Your task to perform on an android device: Check the settings for the Spotify app Image 0: 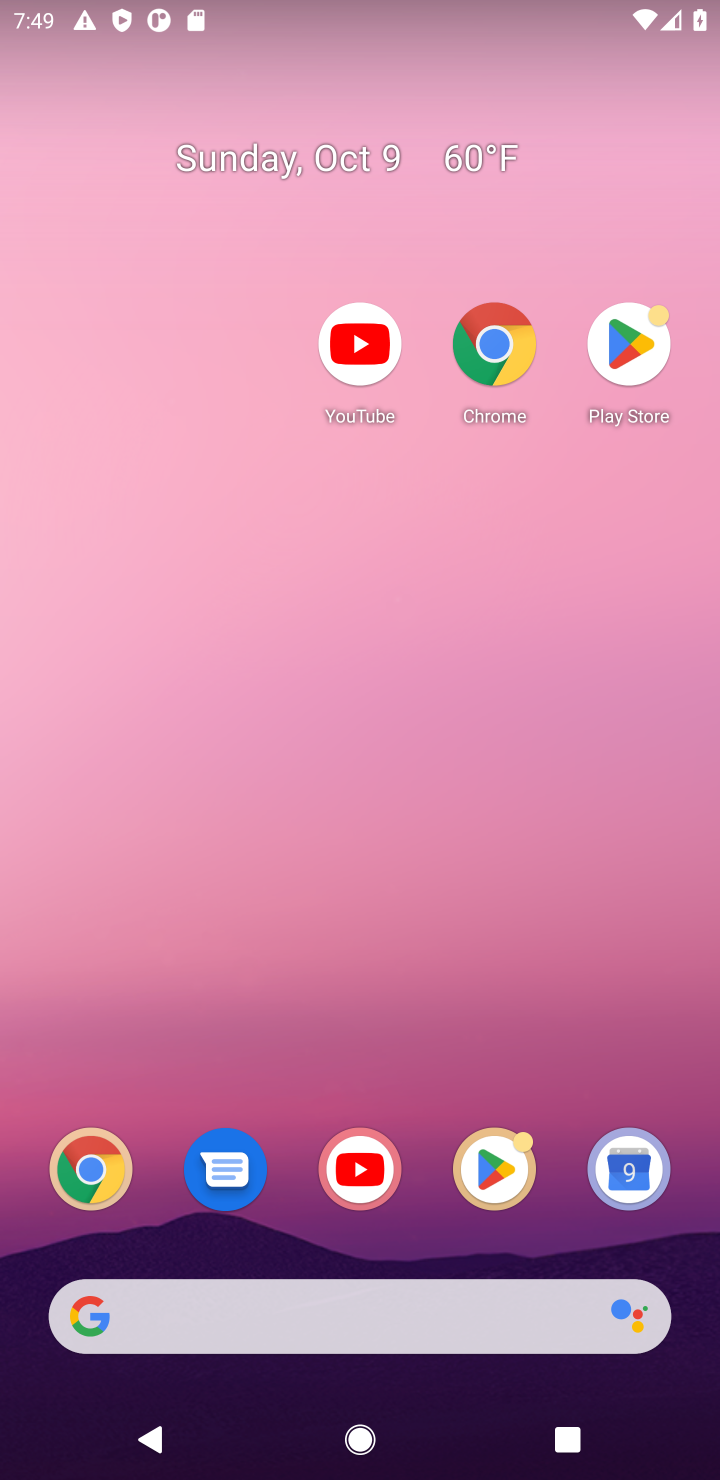
Step 0: drag from (424, 1246) to (441, 109)
Your task to perform on an android device: Check the settings for the Spotify app Image 1: 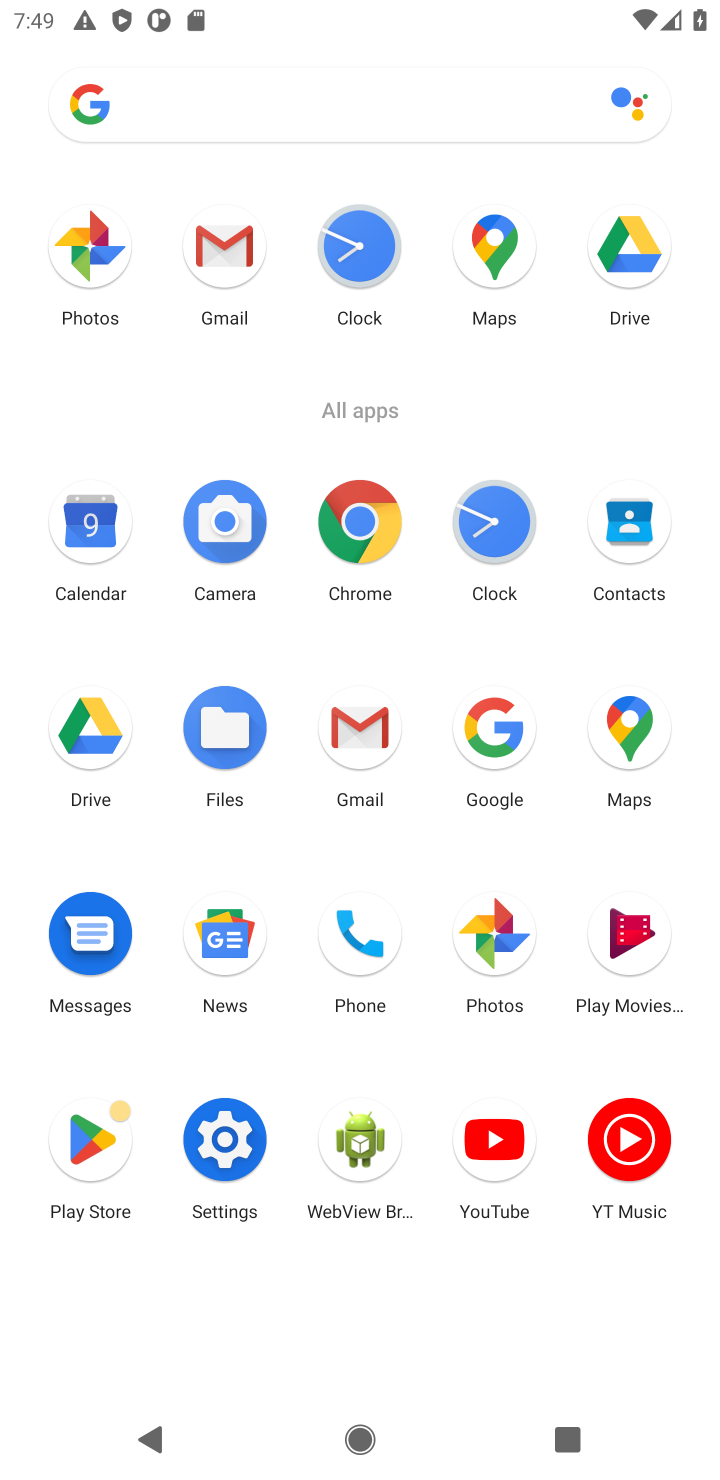
Step 1: task complete